Your task to perform on an android device: change the clock display to show seconds Image 0: 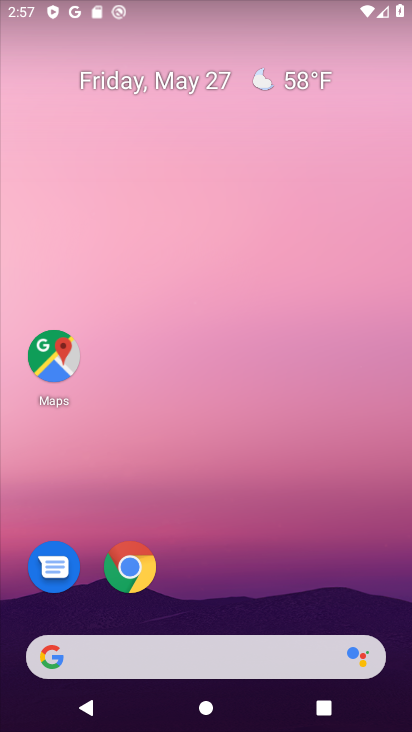
Step 0: press home button
Your task to perform on an android device: change the clock display to show seconds Image 1: 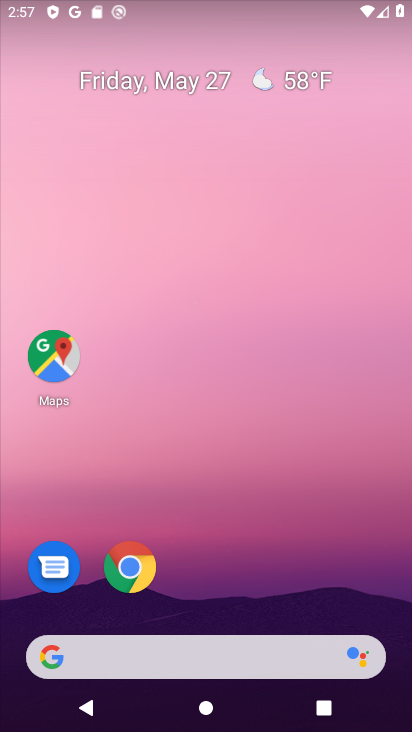
Step 1: drag from (221, 609) to (231, 46)
Your task to perform on an android device: change the clock display to show seconds Image 2: 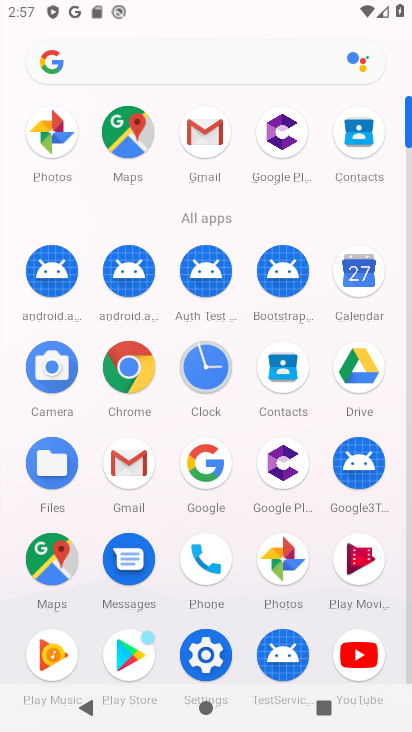
Step 2: click (205, 358)
Your task to perform on an android device: change the clock display to show seconds Image 3: 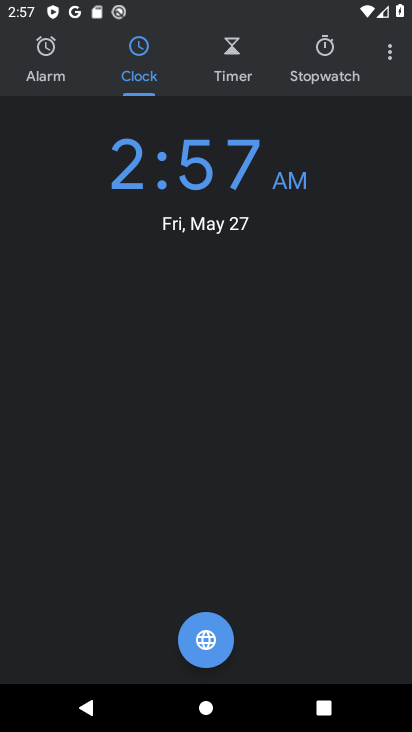
Step 3: click (394, 48)
Your task to perform on an android device: change the clock display to show seconds Image 4: 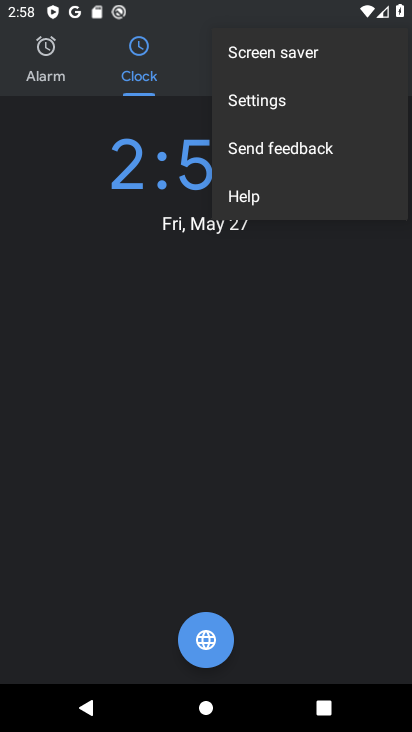
Step 4: click (301, 97)
Your task to perform on an android device: change the clock display to show seconds Image 5: 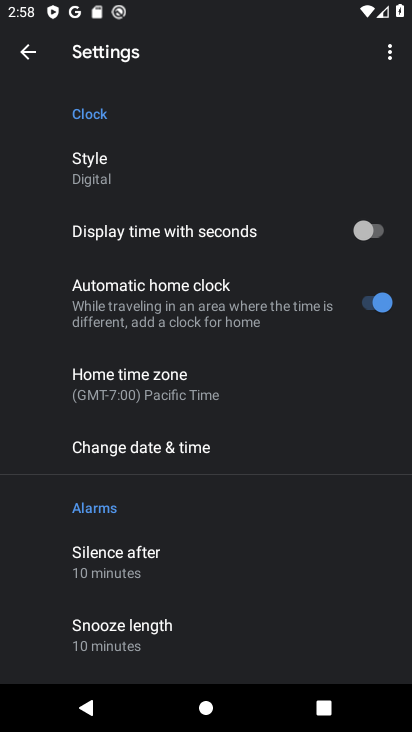
Step 5: click (376, 234)
Your task to perform on an android device: change the clock display to show seconds Image 6: 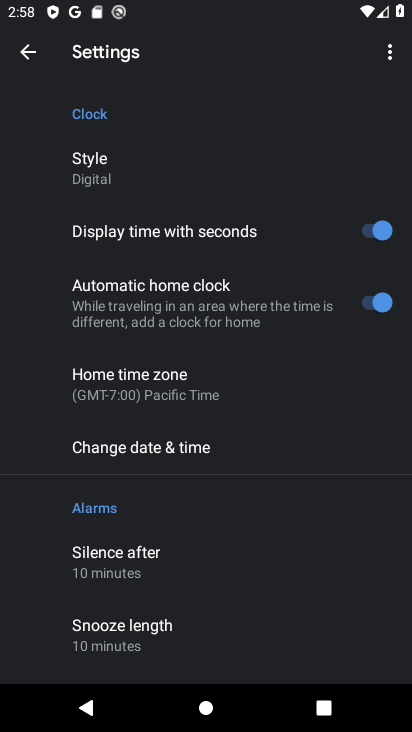
Step 6: task complete